Your task to perform on an android device: What's on my calendar today? Image 0: 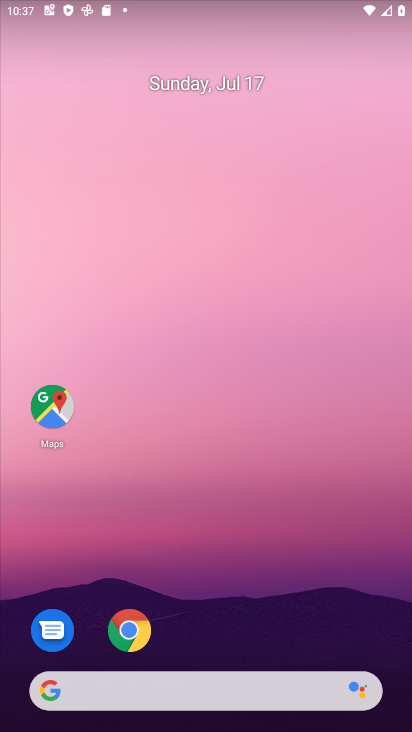
Step 0: drag from (292, 645) to (257, 189)
Your task to perform on an android device: What's on my calendar today? Image 1: 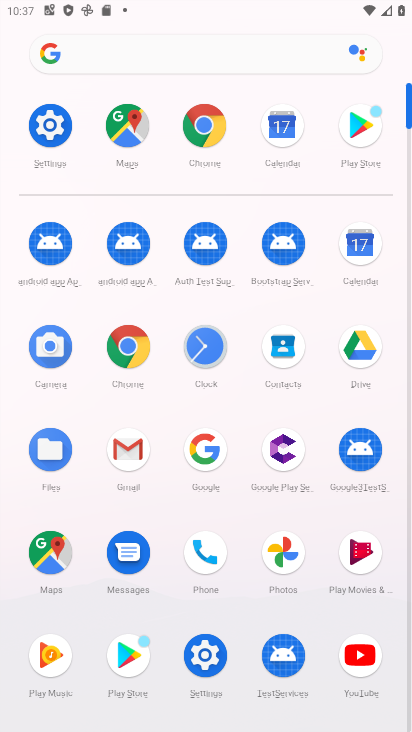
Step 1: click (267, 130)
Your task to perform on an android device: What's on my calendar today? Image 2: 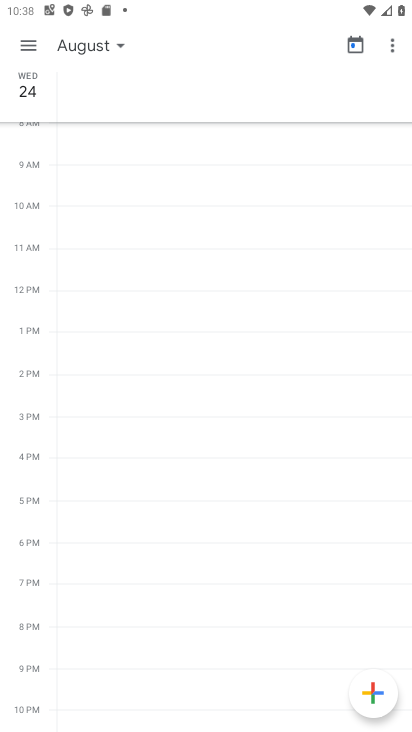
Step 2: task complete